Your task to perform on an android device: Go to calendar. Show me events next week Image 0: 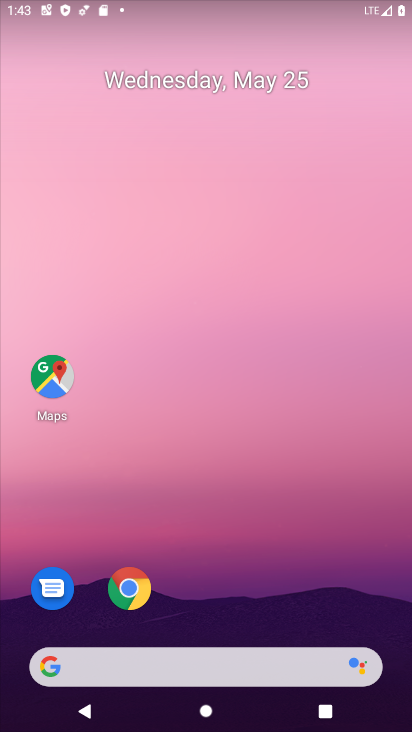
Step 0: drag from (278, 643) to (370, 23)
Your task to perform on an android device: Go to calendar. Show me events next week Image 1: 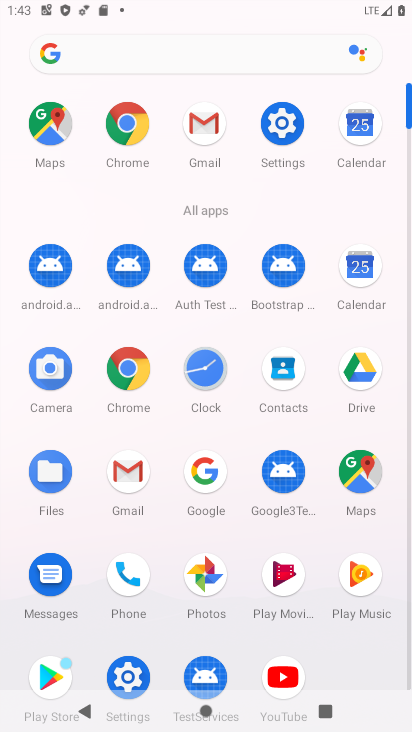
Step 1: click (358, 129)
Your task to perform on an android device: Go to calendar. Show me events next week Image 2: 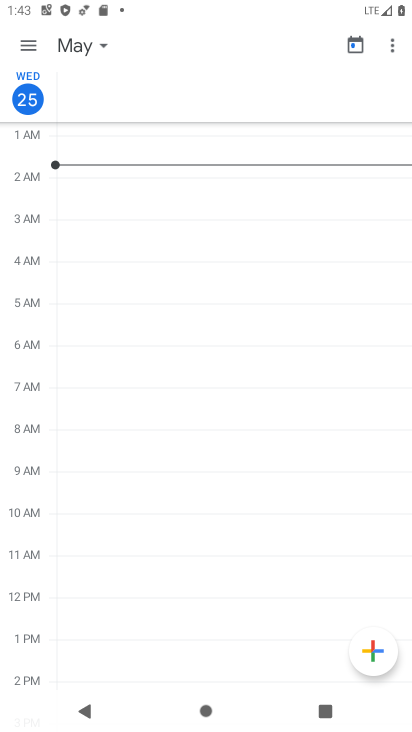
Step 2: click (20, 49)
Your task to perform on an android device: Go to calendar. Show me events next week Image 3: 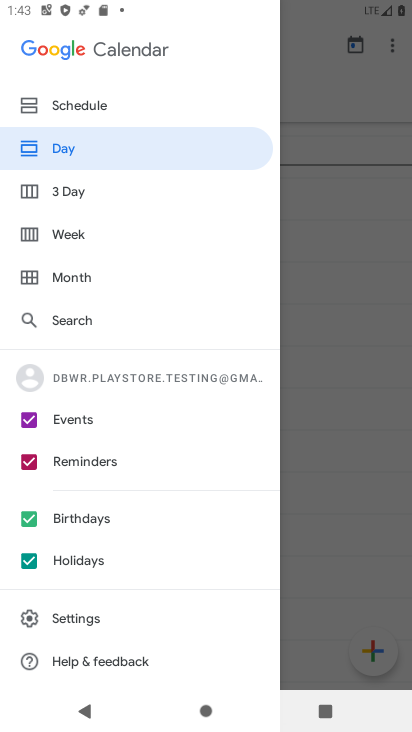
Step 3: click (60, 232)
Your task to perform on an android device: Go to calendar. Show me events next week Image 4: 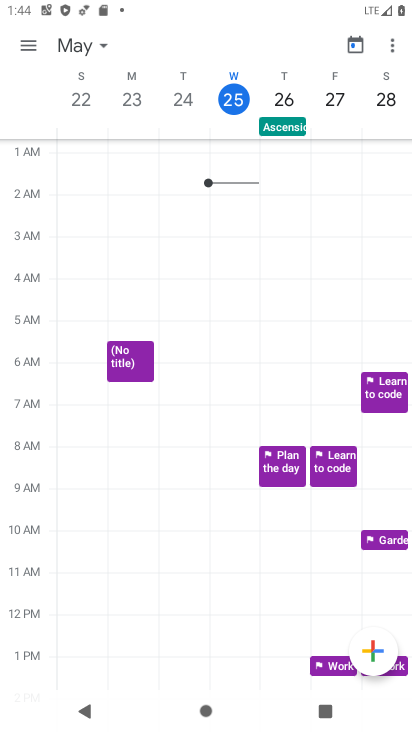
Step 4: click (20, 51)
Your task to perform on an android device: Go to calendar. Show me events next week Image 5: 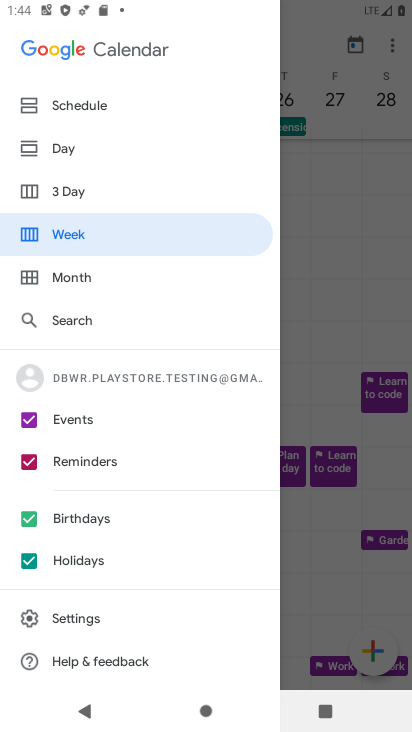
Step 5: click (33, 472)
Your task to perform on an android device: Go to calendar. Show me events next week Image 6: 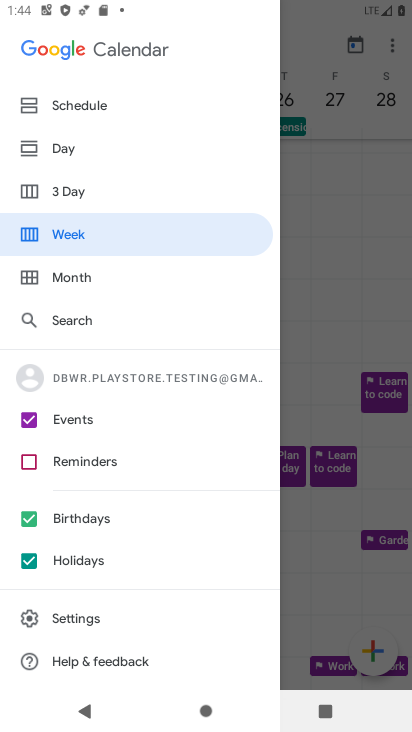
Step 6: click (26, 514)
Your task to perform on an android device: Go to calendar. Show me events next week Image 7: 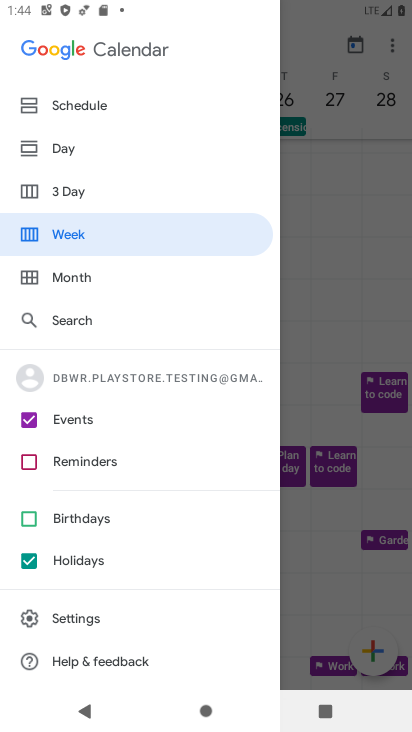
Step 7: click (19, 562)
Your task to perform on an android device: Go to calendar. Show me events next week Image 8: 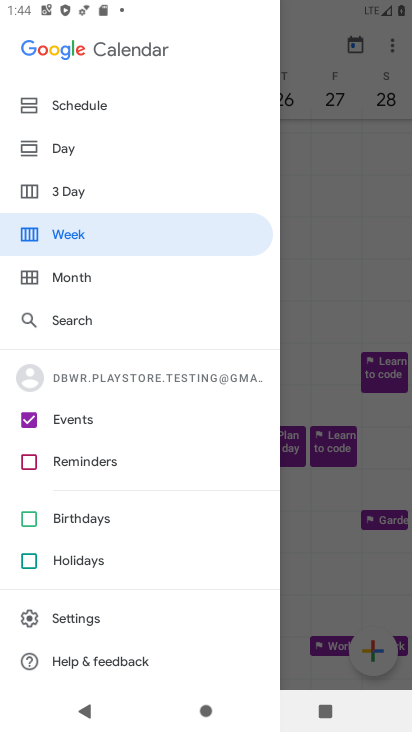
Step 8: click (36, 229)
Your task to perform on an android device: Go to calendar. Show me events next week Image 9: 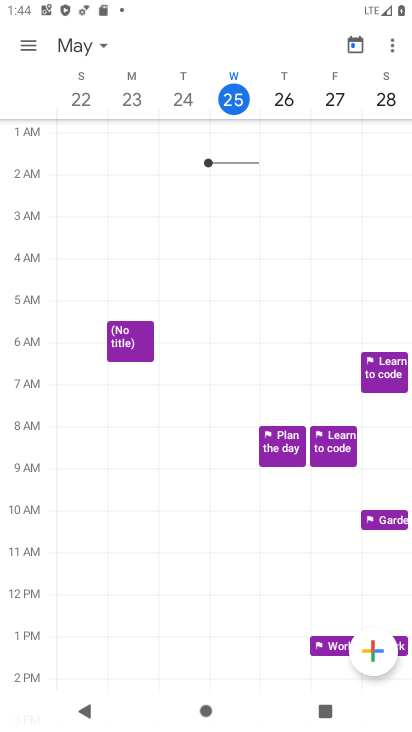
Step 9: task complete